Your task to perform on an android device: turn pop-ups off in chrome Image 0: 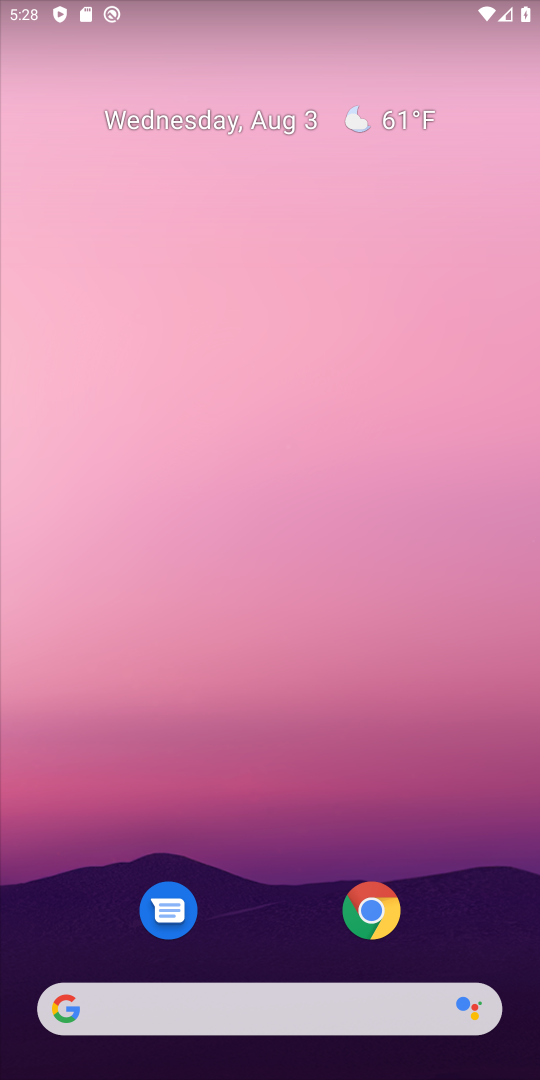
Step 0: drag from (267, 912) to (340, 141)
Your task to perform on an android device: turn pop-ups off in chrome Image 1: 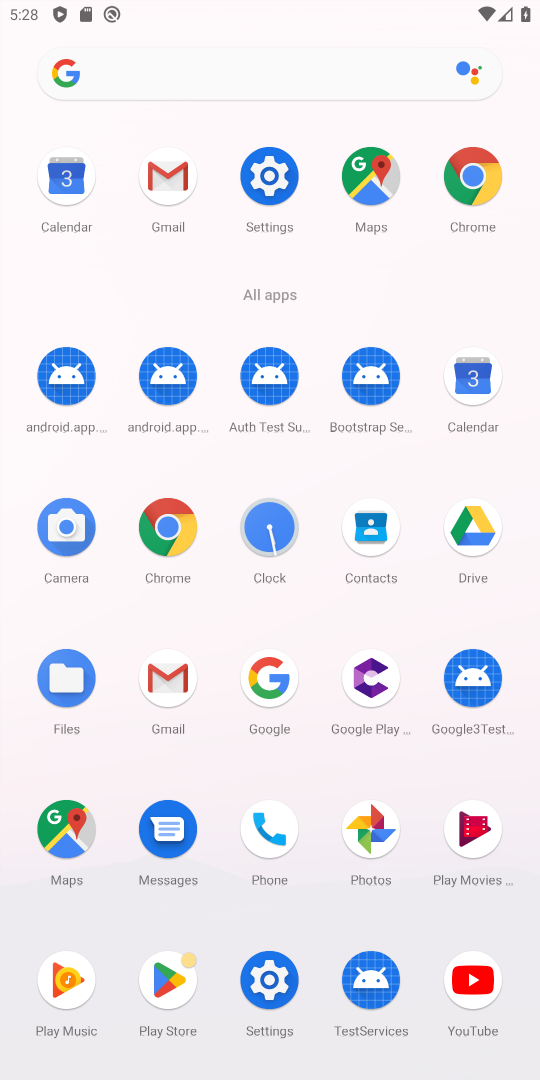
Step 1: click (163, 519)
Your task to perform on an android device: turn pop-ups off in chrome Image 2: 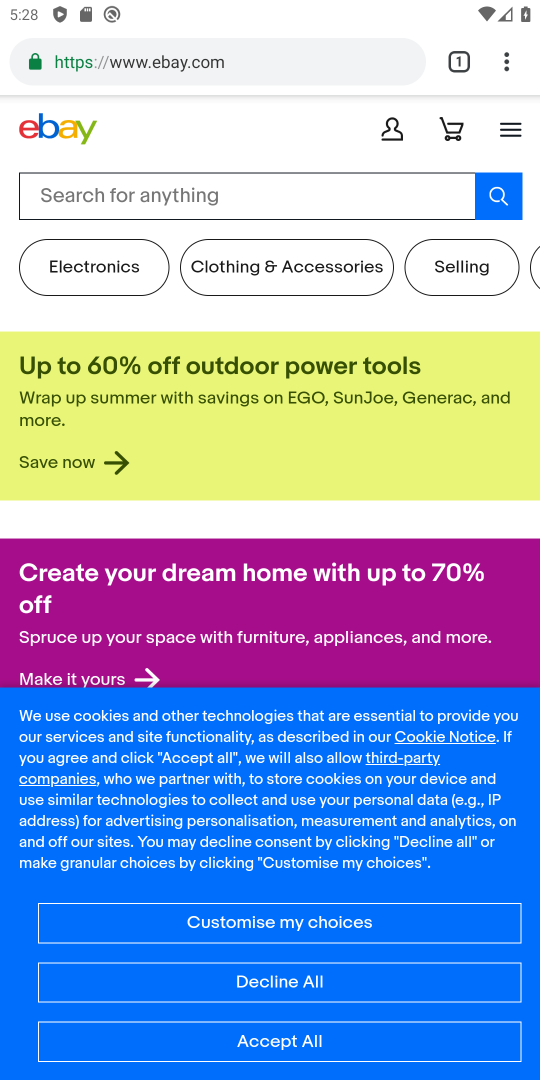
Step 2: drag from (497, 55) to (288, 812)
Your task to perform on an android device: turn pop-ups off in chrome Image 3: 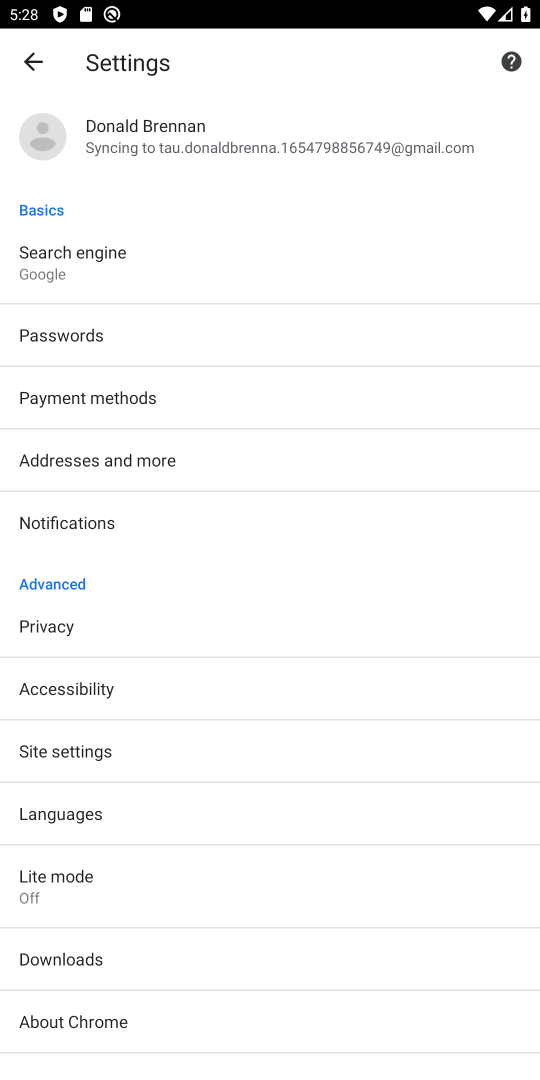
Step 3: click (100, 743)
Your task to perform on an android device: turn pop-ups off in chrome Image 4: 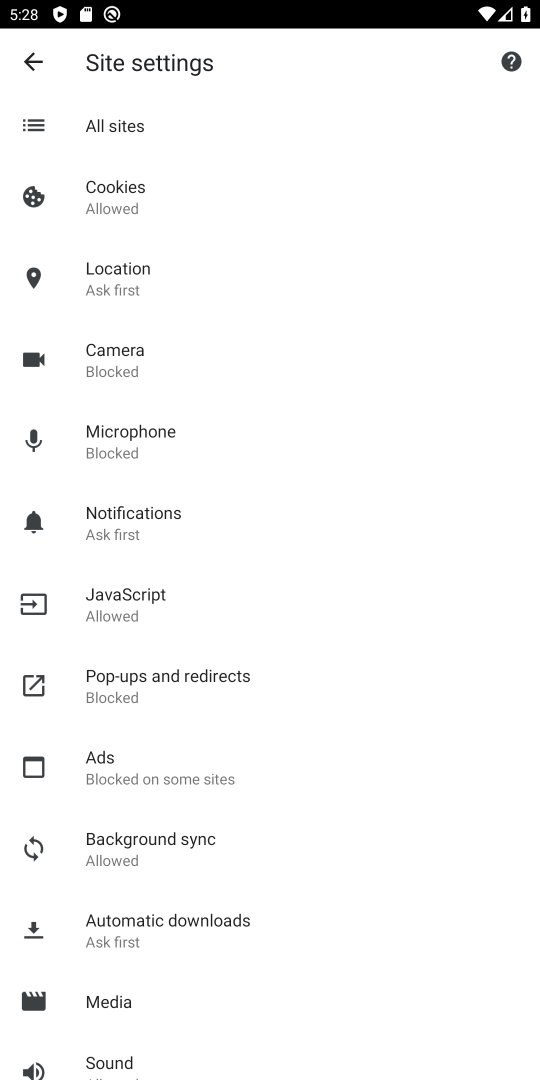
Step 4: click (151, 679)
Your task to perform on an android device: turn pop-ups off in chrome Image 5: 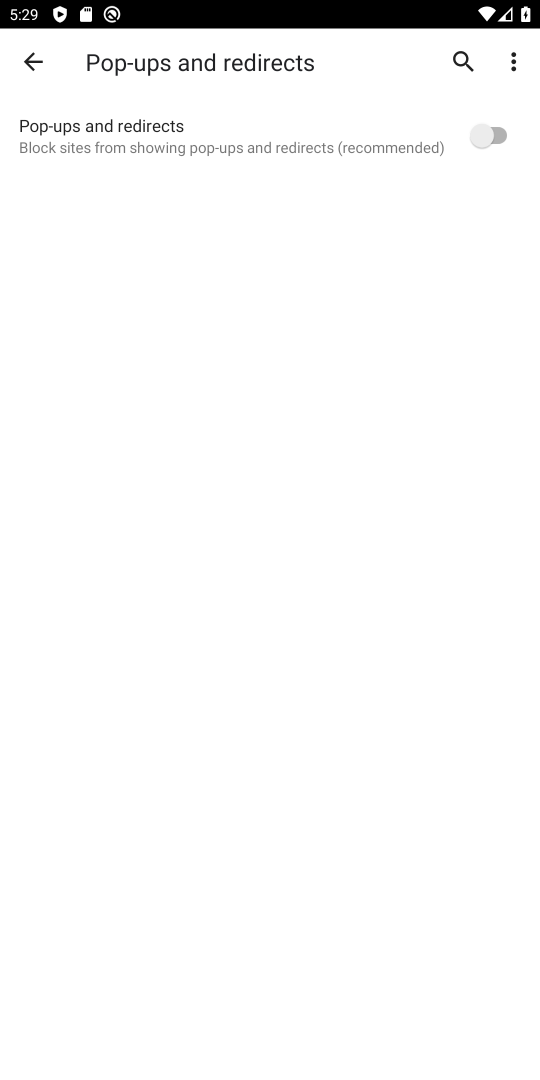
Step 5: task complete